Your task to perform on an android device: Find coffee shops on Maps Image 0: 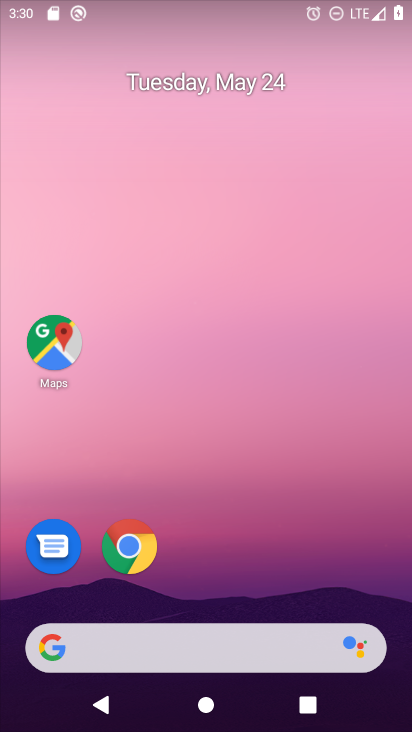
Step 0: drag from (259, 647) to (304, 41)
Your task to perform on an android device: Find coffee shops on Maps Image 1: 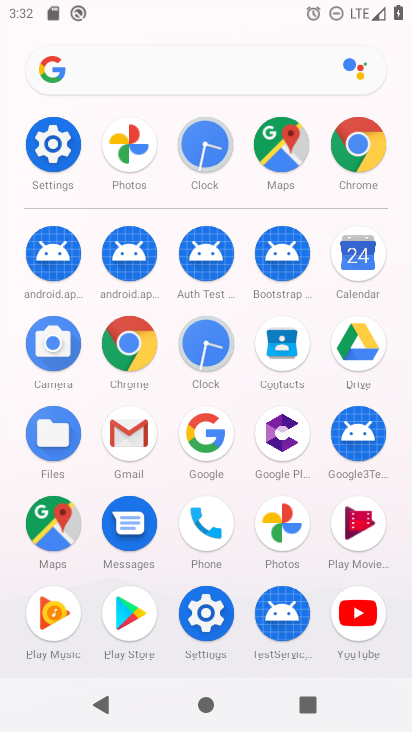
Step 1: click (73, 532)
Your task to perform on an android device: Find coffee shops on Maps Image 2: 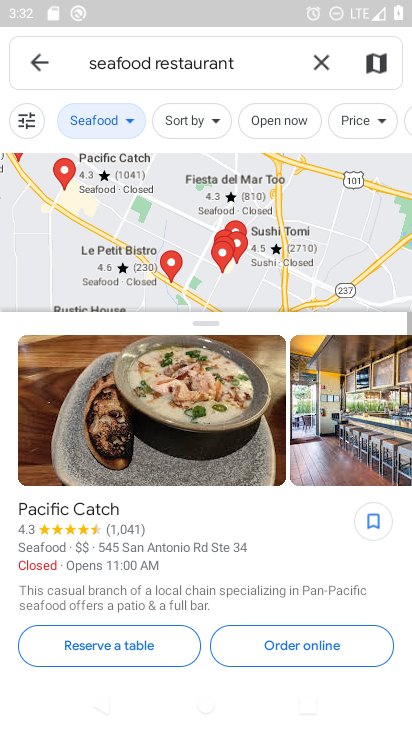
Step 2: click (323, 63)
Your task to perform on an android device: Find coffee shops on Maps Image 3: 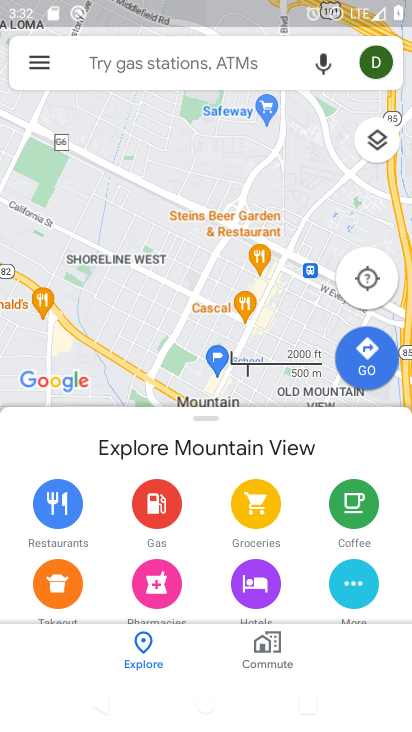
Step 3: click (237, 69)
Your task to perform on an android device: Find coffee shops on Maps Image 4: 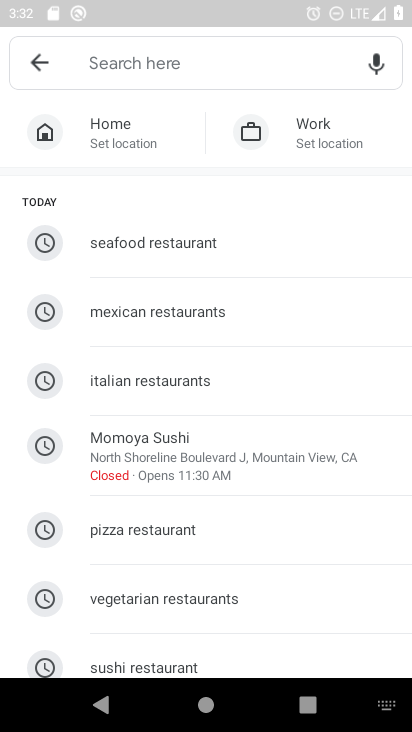
Step 4: drag from (215, 616) to (235, 312)
Your task to perform on an android device: Find coffee shops on Maps Image 5: 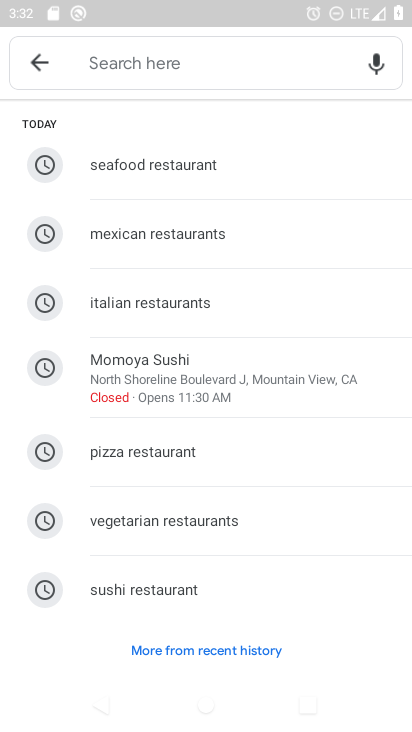
Step 5: click (81, 82)
Your task to perform on an android device: Find coffee shops on Maps Image 6: 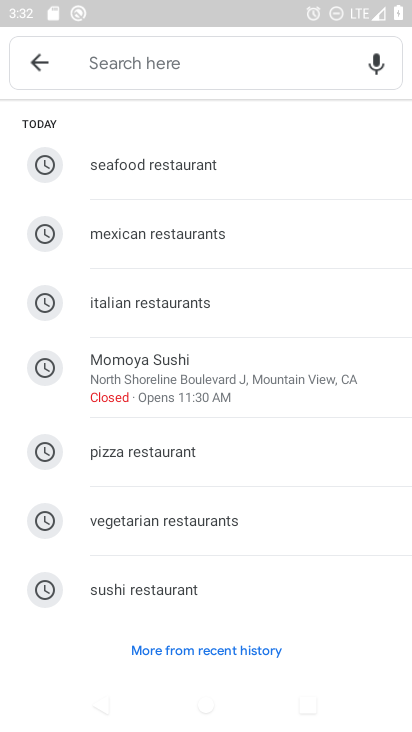
Step 6: click (82, 73)
Your task to perform on an android device: Find coffee shops on Maps Image 7: 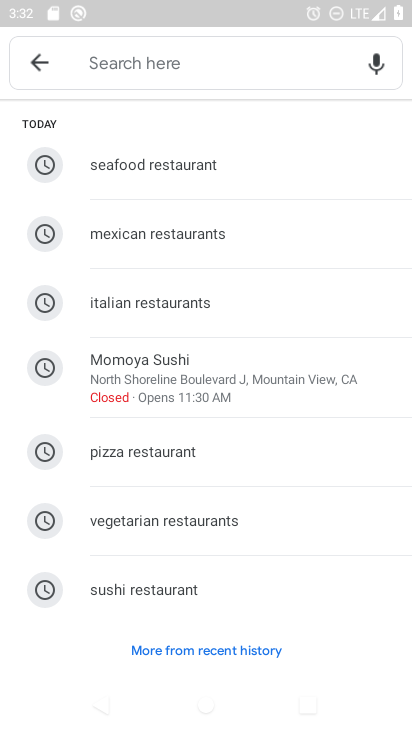
Step 7: click (131, 71)
Your task to perform on an android device: Find coffee shops on Maps Image 8: 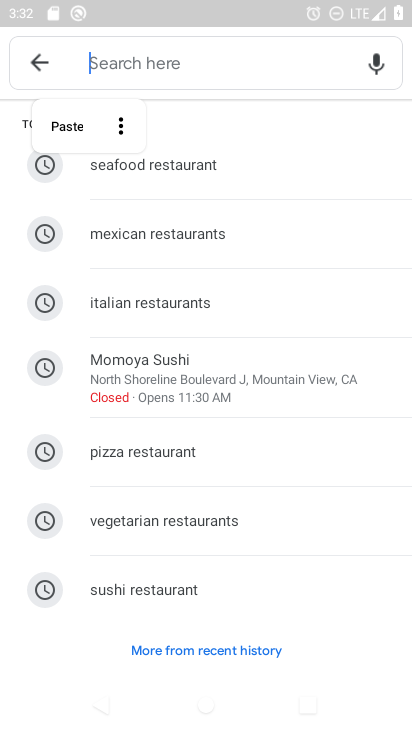
Step 8: type "coffee shops"
Your task to perform on an android device: Find coffee shops on Maps Image 9: 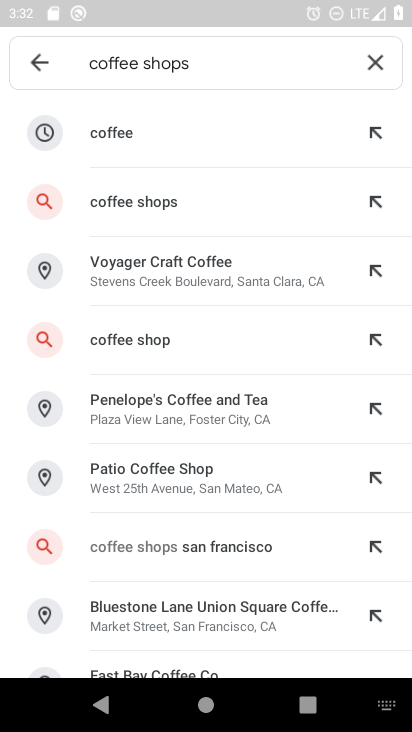
Step 9: click (224, 203)
Your task to perform on an android device: Find coffee shops on Maps Image 10: 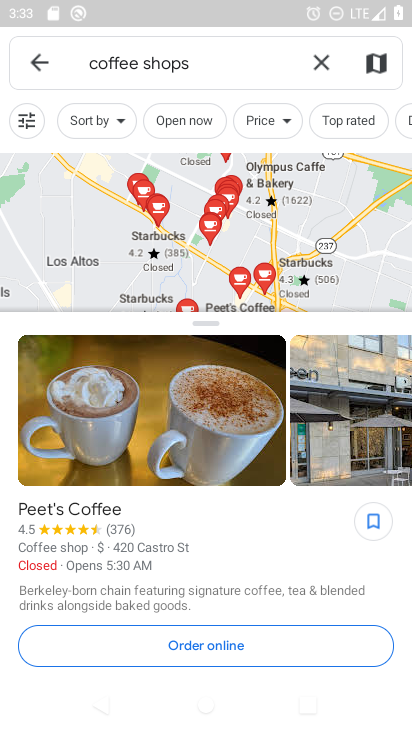
Step 10: task complete